Your task to perform on an android device: choose inbox layout in the gmail app Image 0: 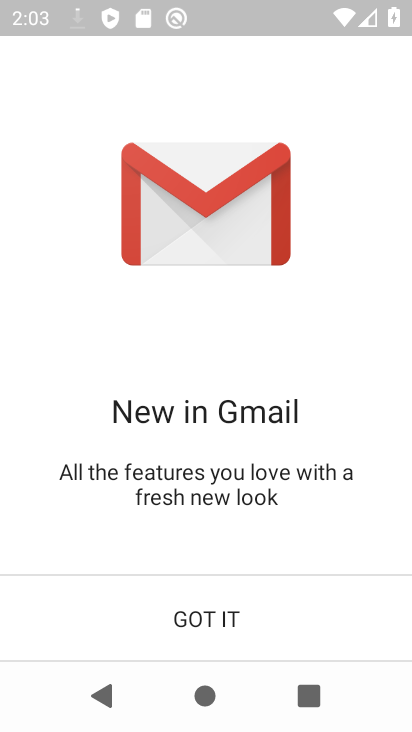
Step 0: press back button
Your task to perform on an android device: choose inbox layout in the gmail app Image 1: 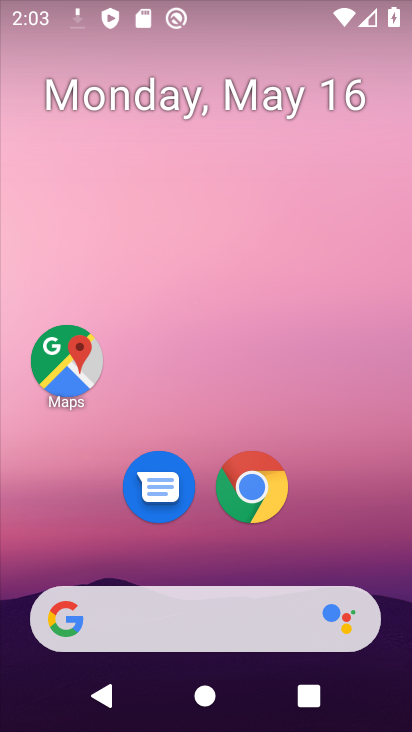
Step 1: drag from (284, 543) to (252, 74)
Your task to perform on an android device: choose inbox layout in the gmail app Image 2: 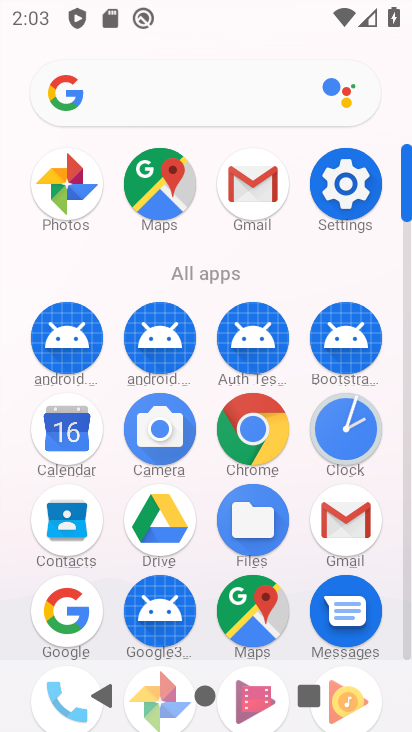
Step 2: click (252, 187)
Your task to perform on an android device: choose inbox layout in the gmail app Image 3: 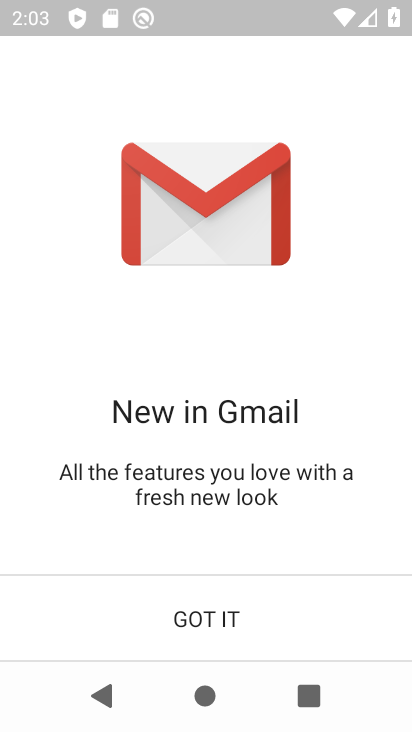
Step 3: click (219, 611)
Your task to perform on an android device: choose inbox layout in the gmail app Image 4: 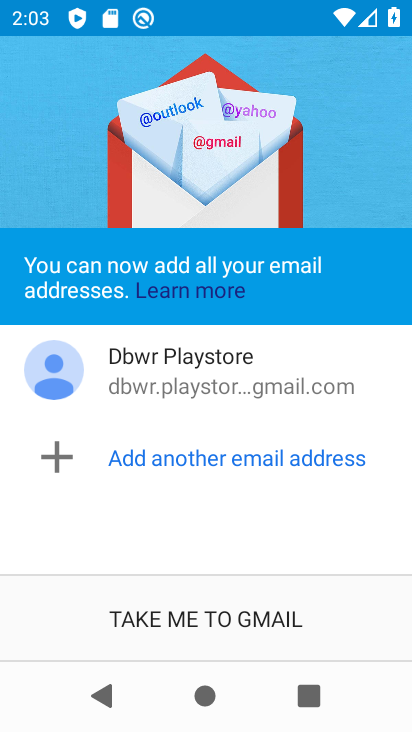
Step 4: click (212, 617)
Your task to perform on an android device: choose inbox layout in the gmail app Image 5: 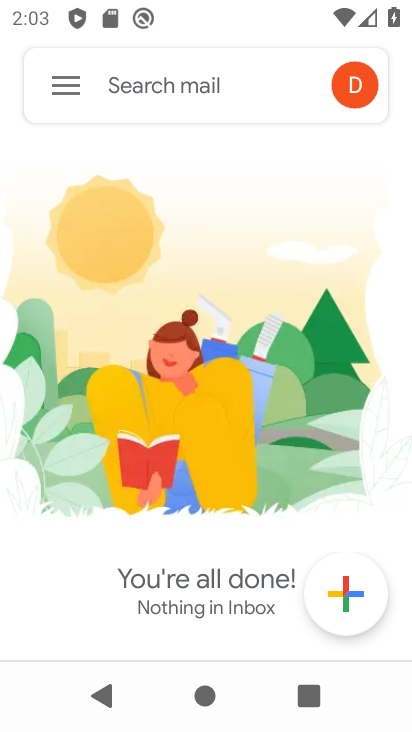
Step 5: click (71, 84)
Your task to perform on an android device: choose inbox layout in the gmail app Image 6: 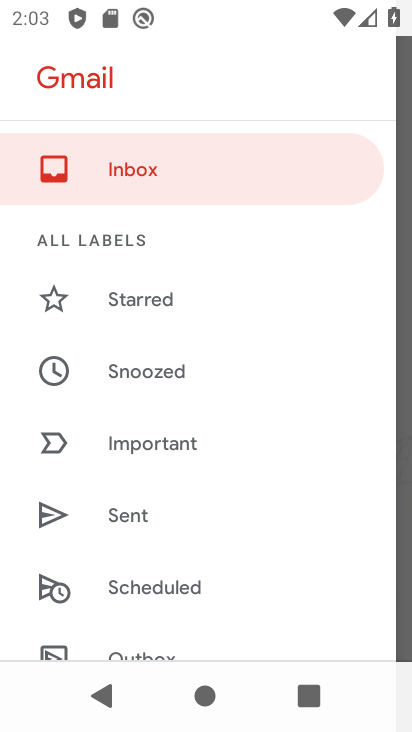
Step 6: drag from (185, 491) to (226, 397)
Your task to perform on an android device: choose inbox layout in the gmail app Image 7: 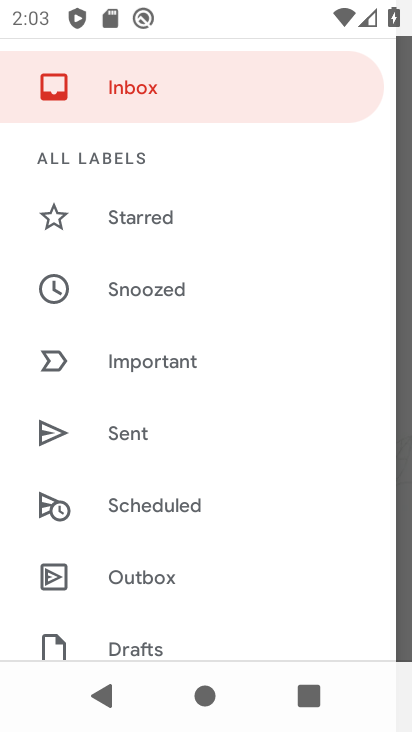
Step 7: drag from (155, 468) to (202, 397)
Your task to perform on an android device: choose inbox layout in the gmail app Image 8: 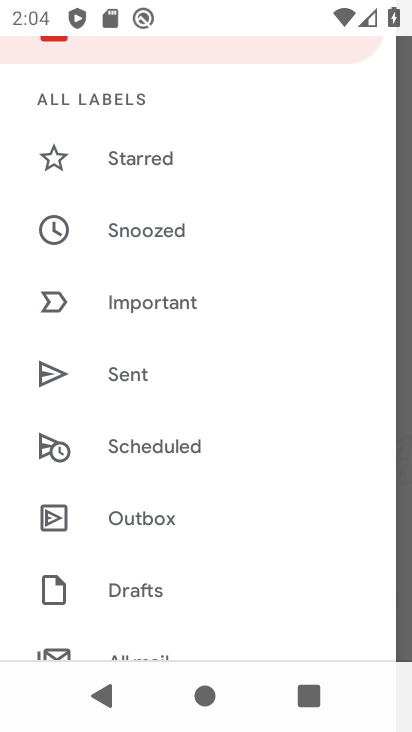
Step 8: drag from (139, 487) to (196, 403)
Your task to perform on an android device: choose inbox layout in the gmail app Image 9: 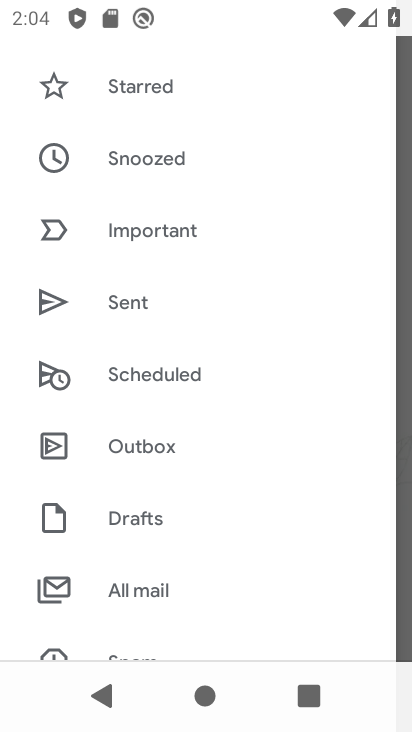
Step 9: drag from (148, 490) to (198, 422)
Your task to perform on an android device: choose inbox layout in the gmail app Image 10: 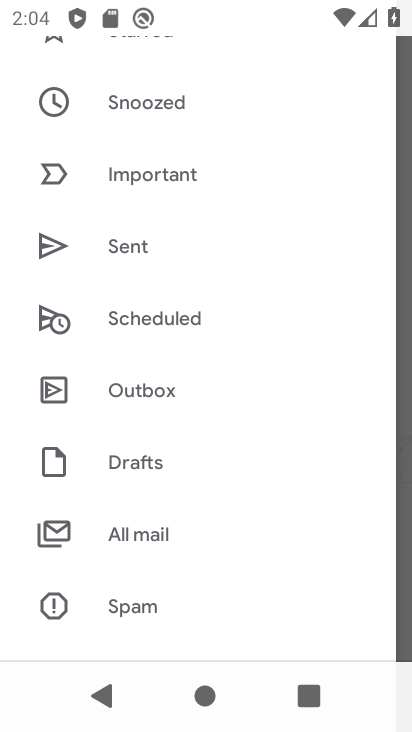
Step 10: drag from (138, 493) to (180, 423)
Your task to perform on an android device: choose inbox layout in the gmail app Image 11: 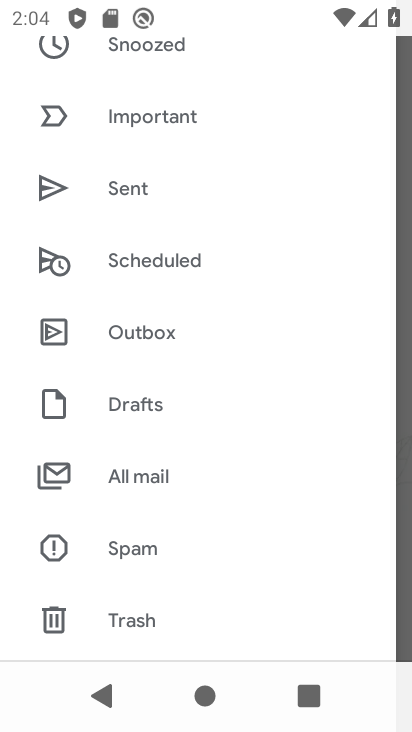
Step 11: drag from (124, 460) to (189, 372)
Your task to perform on an android device: choose inbox layout in the gmail app Image 12: 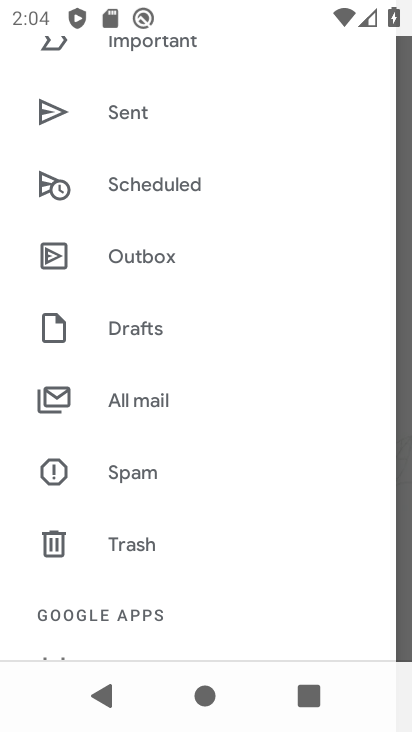
Step 12: drag from (111, 445) to (202, 344)
Your task to perform on an android device: choose inbox layout in the gmail app Image 13: 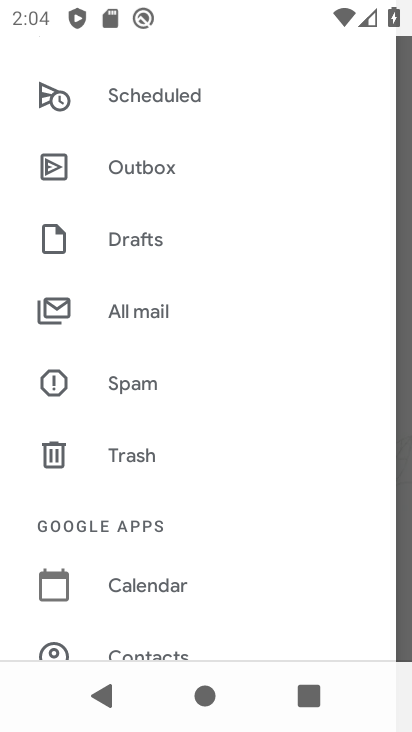
Step 13: drag from (137, 420) to (205, 314)
Your task to perform on an android device: choose inbox layout in the gmail app Image 14: 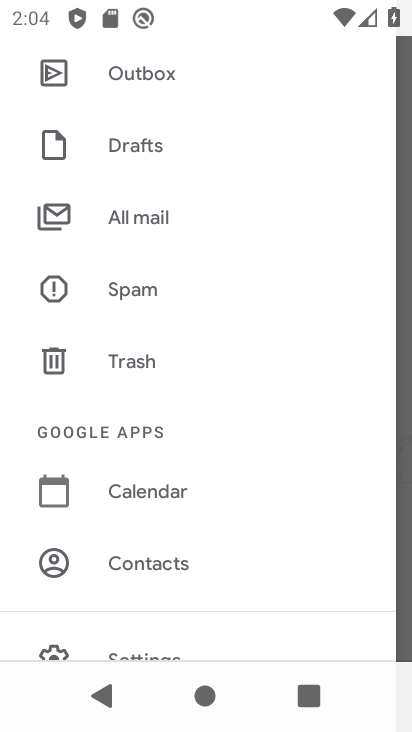
Step 14: drag from (175, 488) to (249, 397)
Your task to perform on an android device: choose inbox layout in the gmail app Image 15: 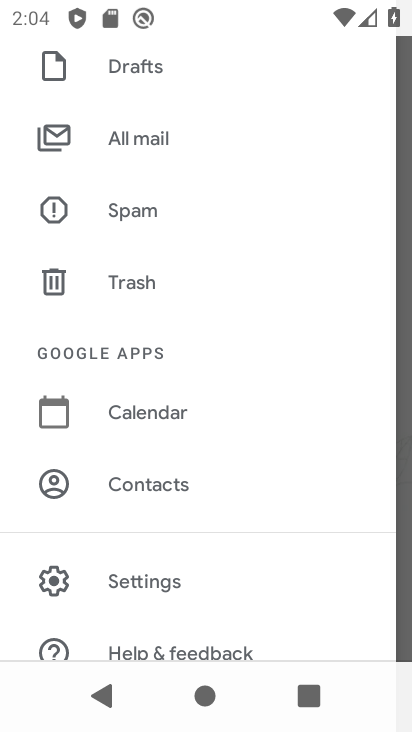
Step 15: click (157, 580)
Your task to perform on an android device: choose inbox layout in the gmail app Image 16: 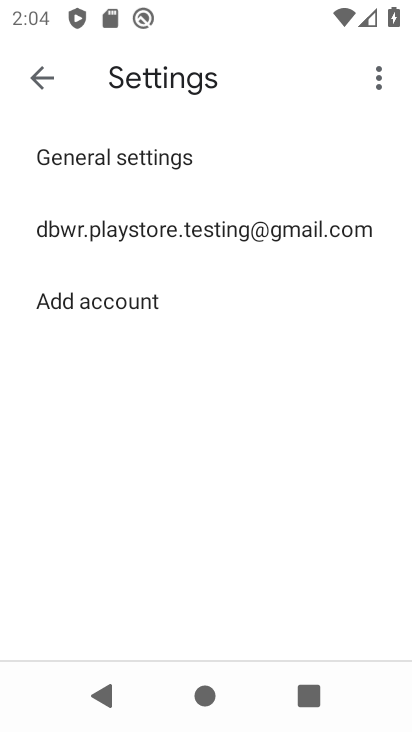
Step 16: click (164, 240)
Your task to perform on an android device: choose inbox layout in the gmail app Image 17: 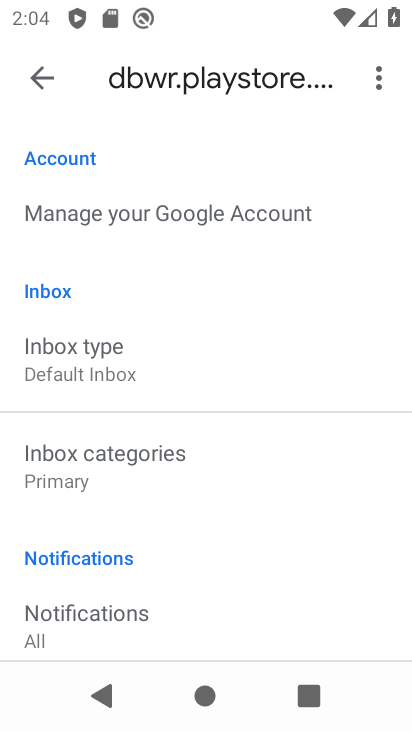
Step 17: click (92, 369)
Your task to perform on an android device: choose inbox layout in the gmail app Image 18: 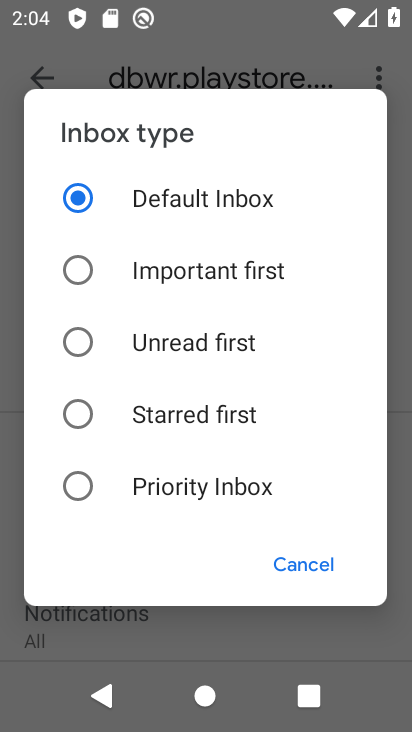
Step 18: click (72, 285)
Your task to perform on an android device: choose inbox layout in the gmail app Image 19: 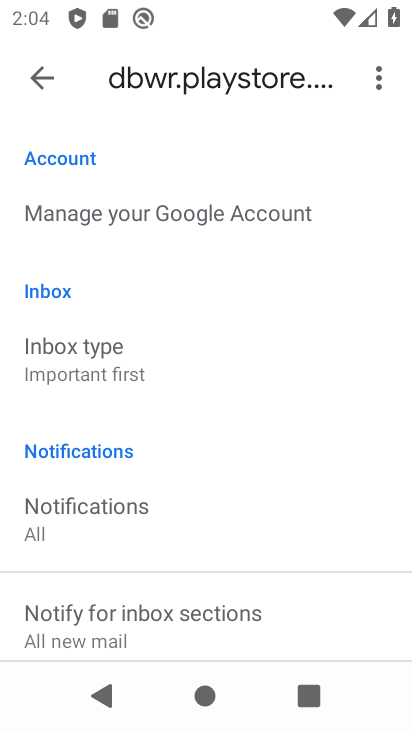
Step 19: task complete